Your task to perform on an android device: toggle priority inbox in the gmail app Image 0: 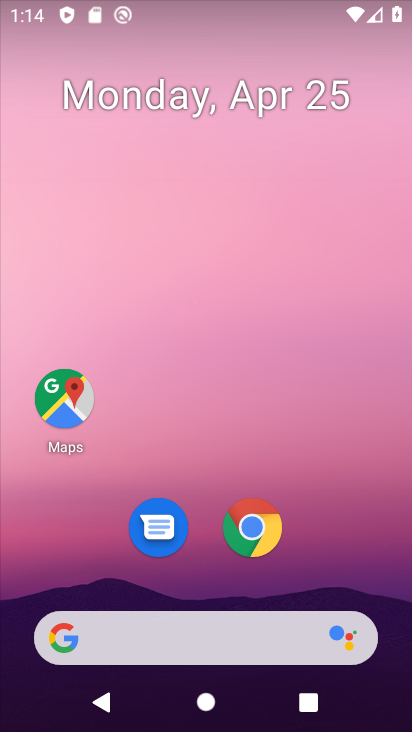
Step 0: drag from (396, 589) to (309, 78)
Your task to perform on an android device: toggle priority inbox in the gmail app Image 1: 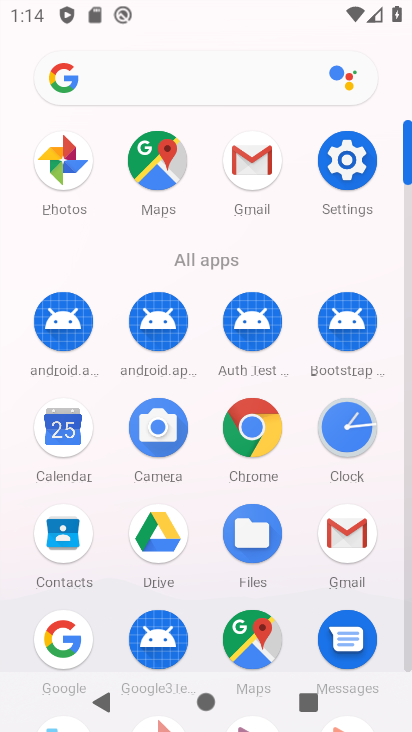
Step 1: click (339, 530)
Your task to perform on an android device: toggle priority inbox in the gmail app Image 2: 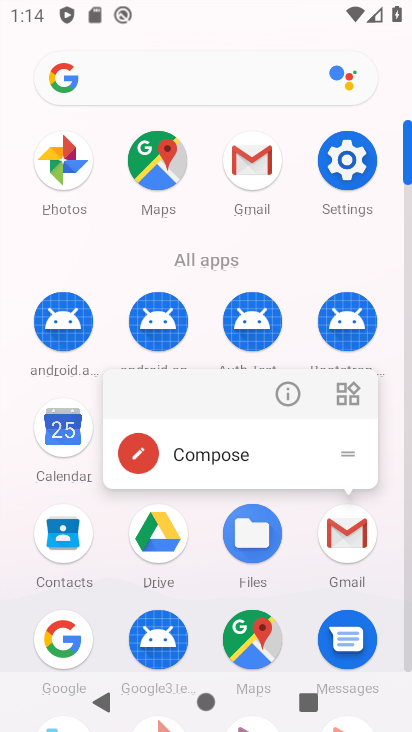
Step 2: click (345, 536)
Your task to perform on an android device: toggle priority inbox in the gmail app Image 3: 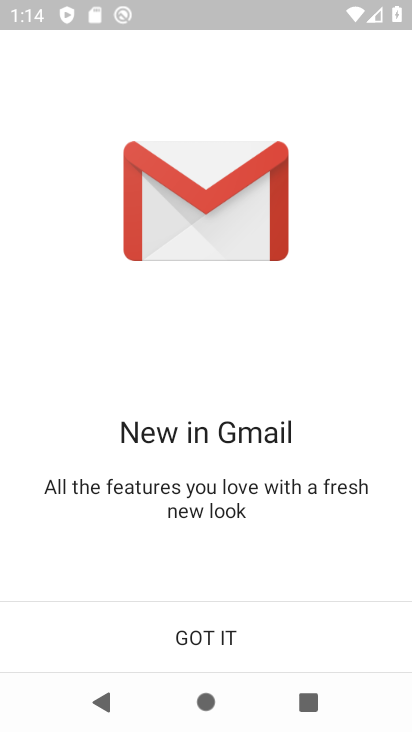
Step 3: click (158, 624)
Your task to perform on an android device: toggle priority inbox in the gmail app Image 4: 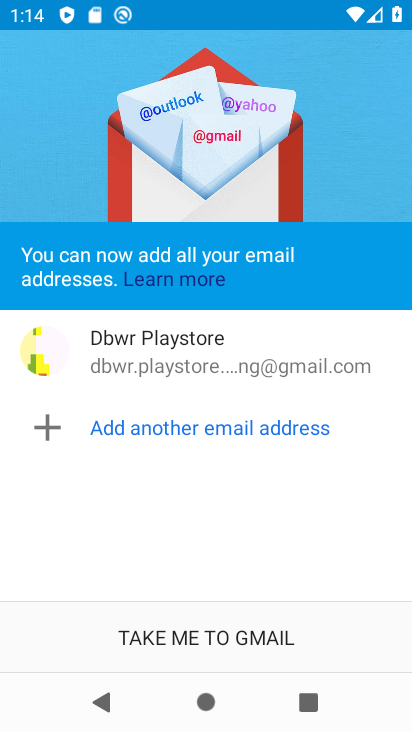
Step 4: click (158, 624)
Your task to perform on an android device: toggle priority inbox in the gmail app Image 5: 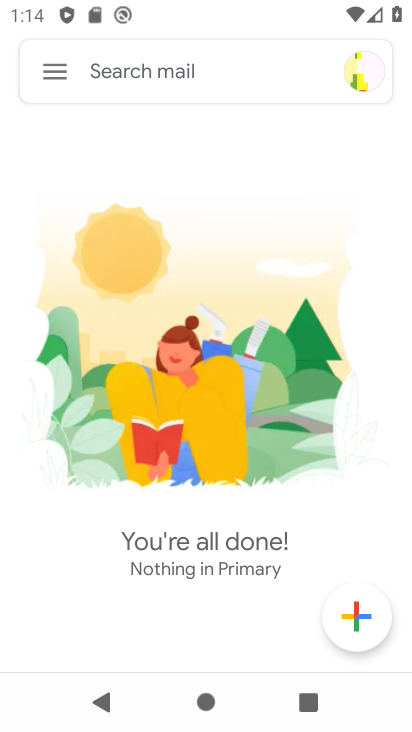
Step 5: click (41, 59)
Your task to perform on an android device: toggle priority inbox in the gmail app Image 6: 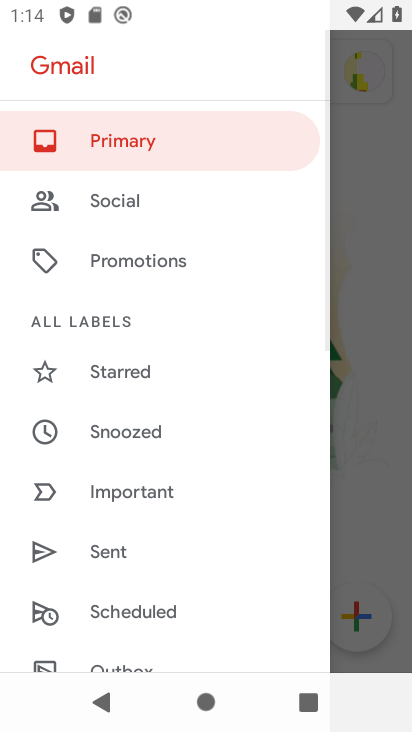
Step 6: drag from (116, 631) to (196, 113)
Your task to perform on an android device: toggle priority inbox in the gmail app Image 7: 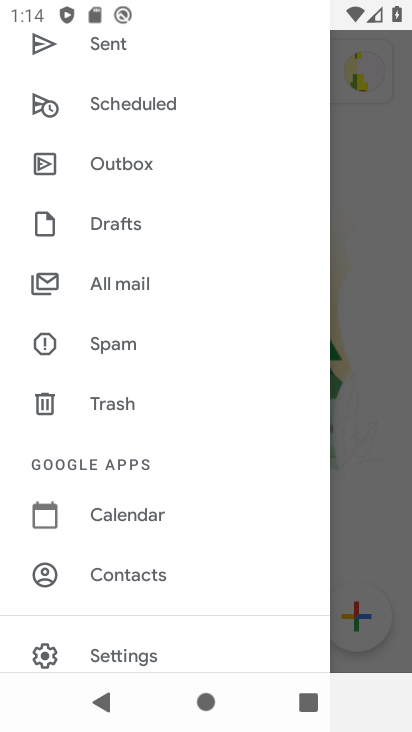
Step 7: click (113, 650)
Your task to perform on an android device: toggle priority inbox in the gmail app Image 8: 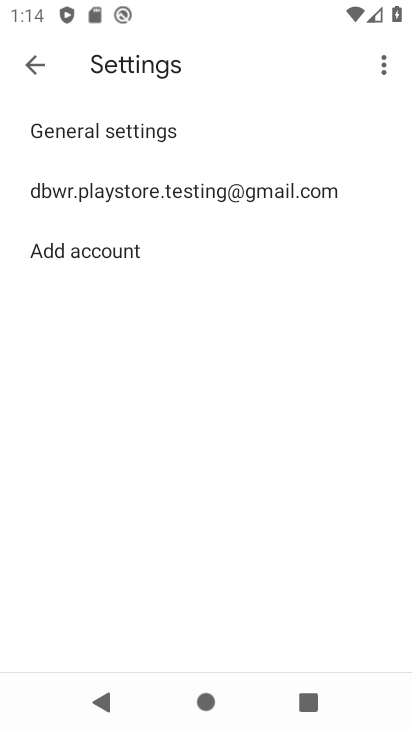
Step 8: click (282, 187)
Your task to perform on an android device: toggle priority inbox in the gmail app Image 9: 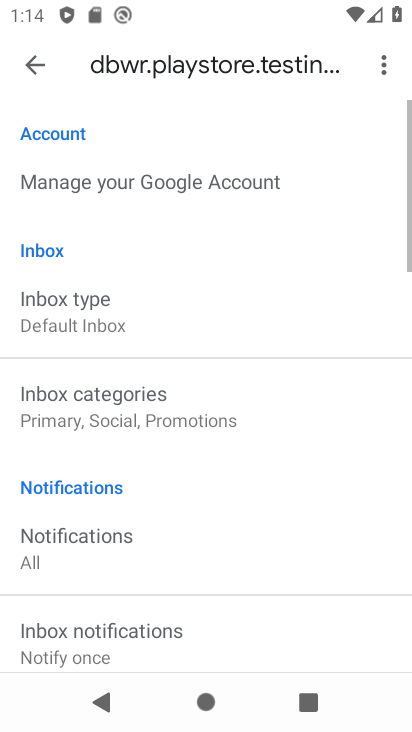
Step 9: click (215, 324)
Your task to perform on an android device: toggle priority inbox in the gmail app Image 10: 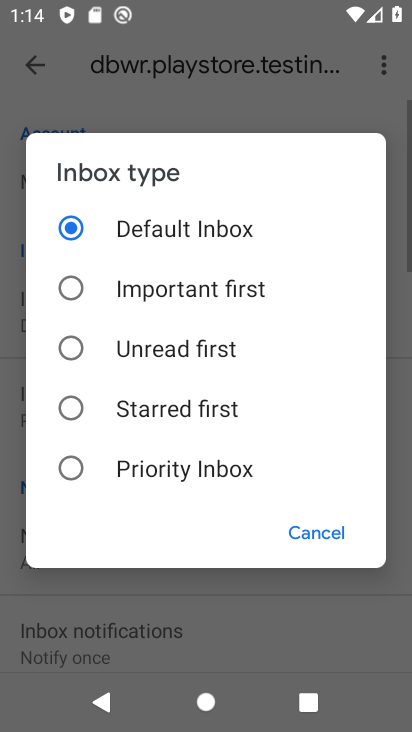
Step 10: click (184, 470)
Your task to perform on an android device: toggle priority inbox in the gmail app Image 11: 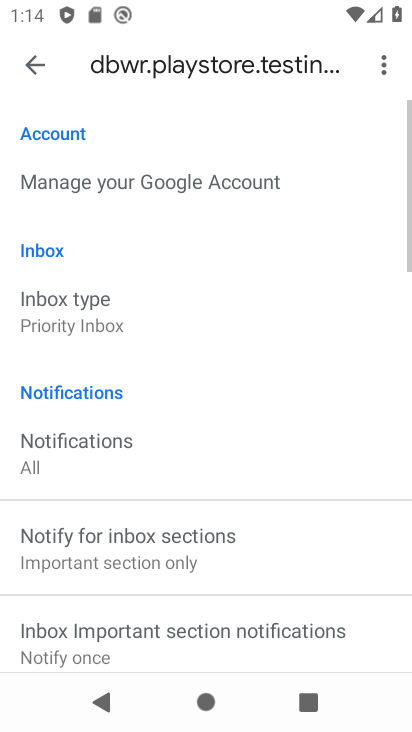
Step 11: task complete